Your task to perform on an android device: change notifications settings Image 0: 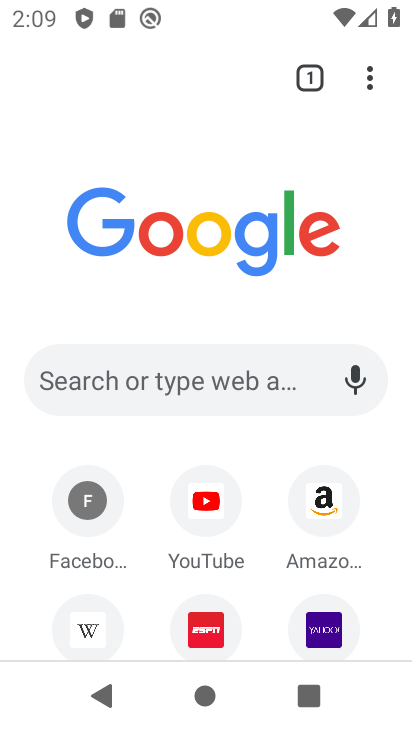
Step 0: press back button
Your task to perform on an android device: change notifications settings Image 1: 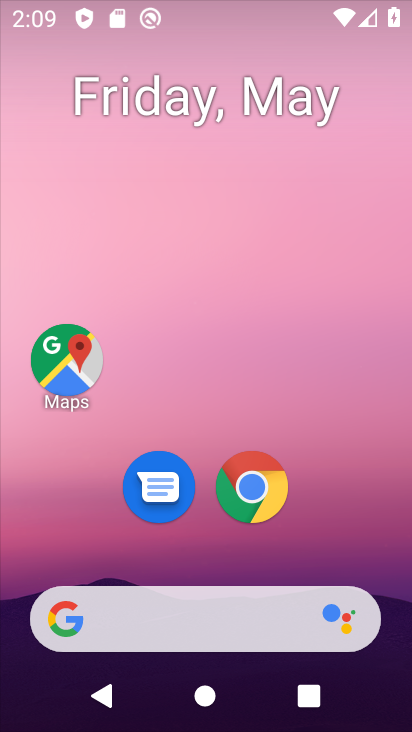
Step 1: drag from (182, 566) to (250, 3)
Your task to perform on an android device: change notifications settings Image 2: 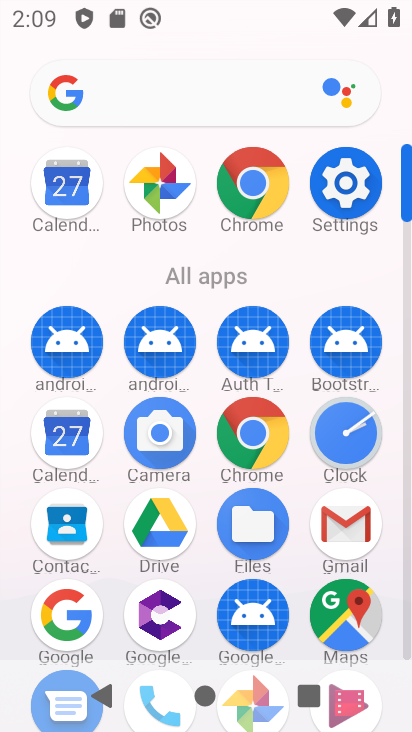
Step 2: click (329, 182)
Your task to perform on an android device: change notifications settings Image 3: 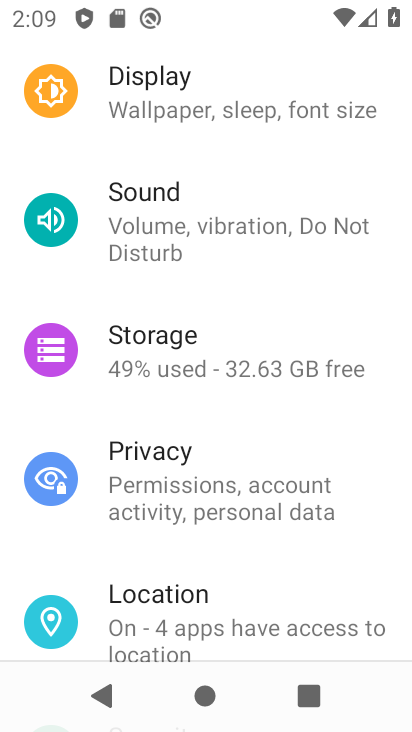
Step 3: drag from (254, 151) to (171, 710)
Your task to perform on an android device: change notifications settings Image 4: 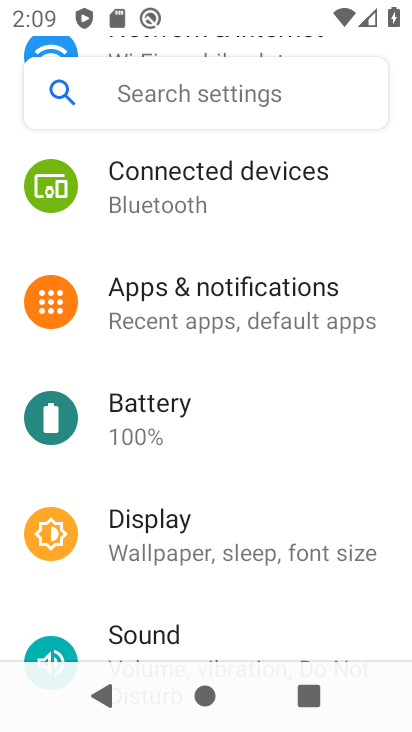
Step 4: click (198, 289)
Your task to perform on an android device: change notifications settings Image 5: 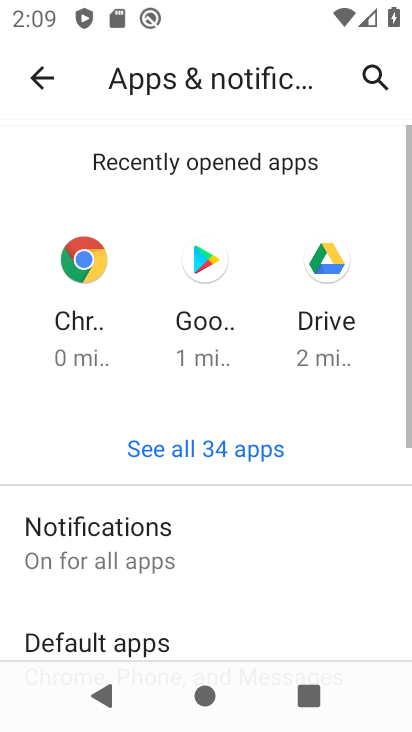
Step 5: click (135, 539)
Your task to perform on an android device: change notifications settings Image 6: 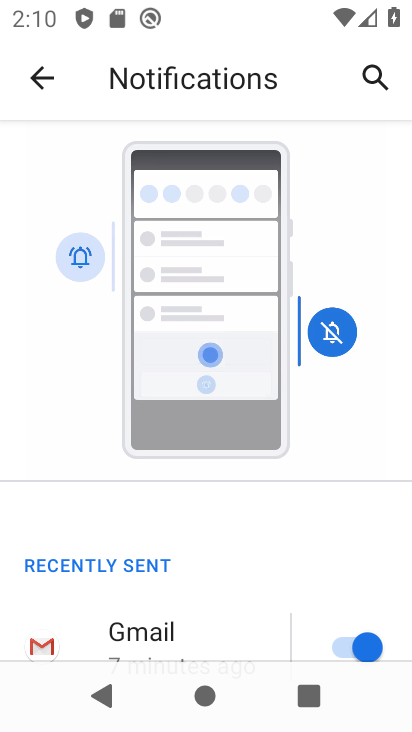
Step 6: drag from (142, 577) to (245, 120)
Your task to perform on an android device: change notifications settings Image 7: 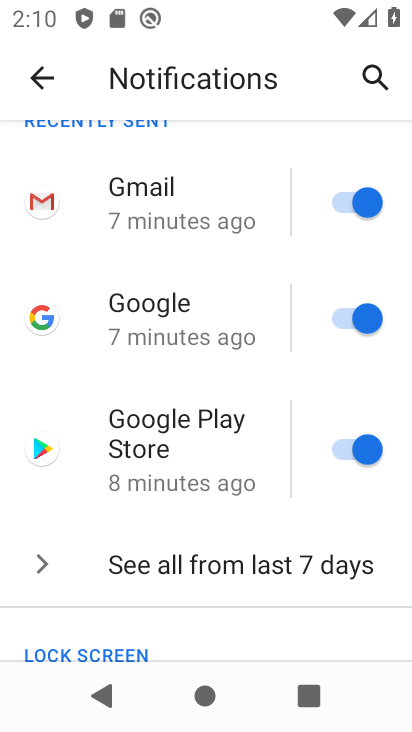
Step 7: drag from (143, 563) to (217, 17)
Your task to perform on an android device: change notifications settings Image 8: 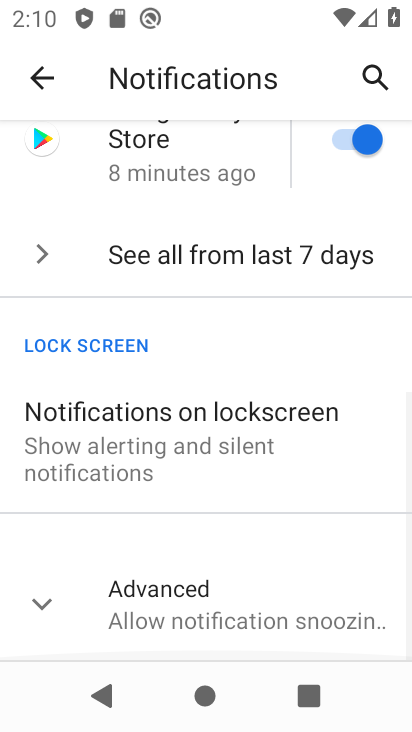
Step 8: click (188, 597)
Your task to perform on an android device: change notifications settings Image 9: 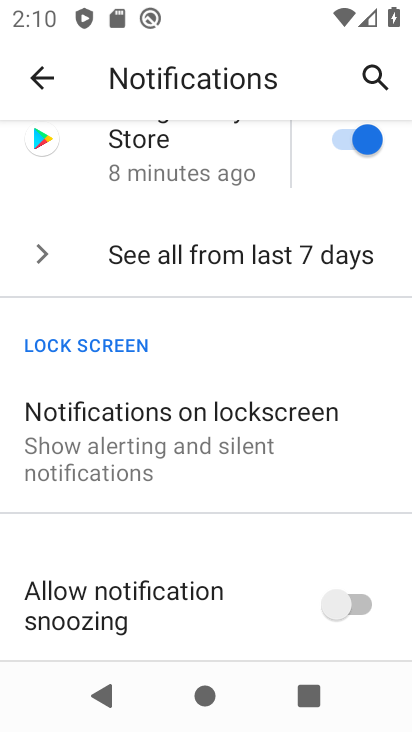
Step 9: click (342, 591)
Your task to perform on an android device: change notifications settings Image 10: 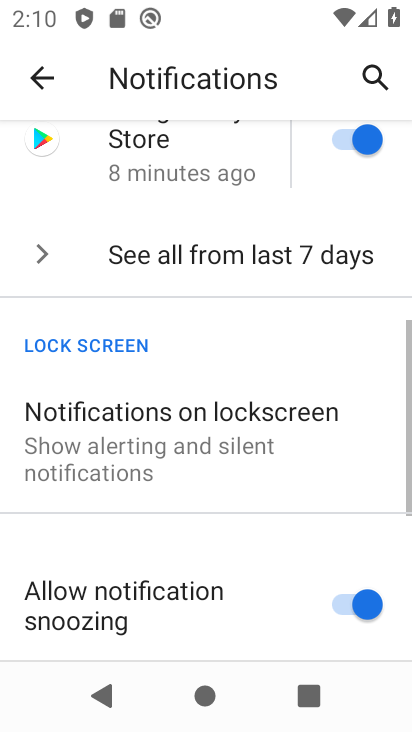
Step 10: task complete